Your task to perform on an android device: turn off priority inbox in the gmail app Image 0: 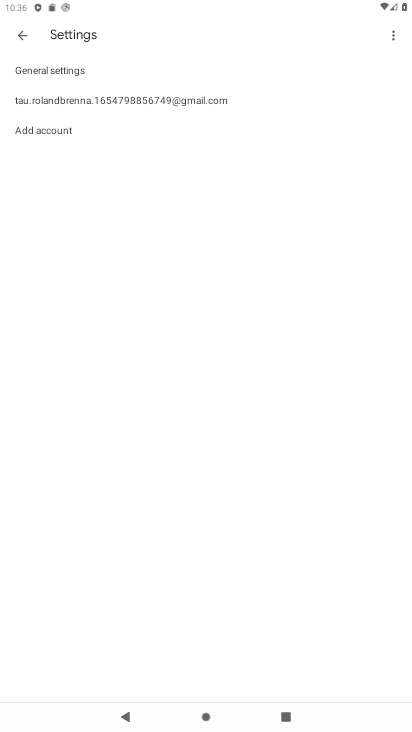
Step 0: press home button
Your task to perform on an android device: turn off priority inbox in the gmail app Image 1: 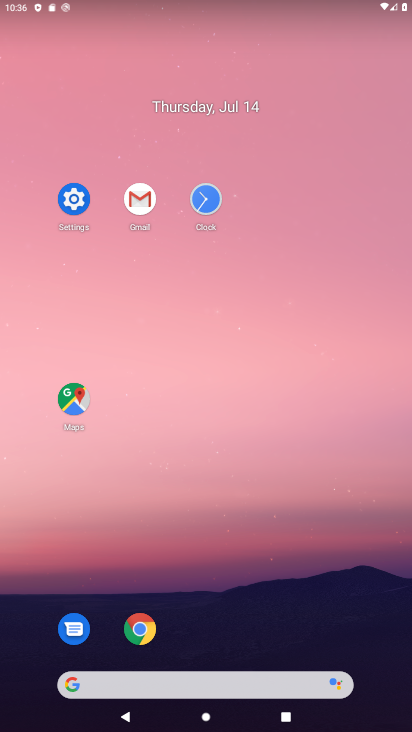
Step 1: click (139, 195)
Your task to perform on an android device: turn off priority inbox in the gmail app Image 2: 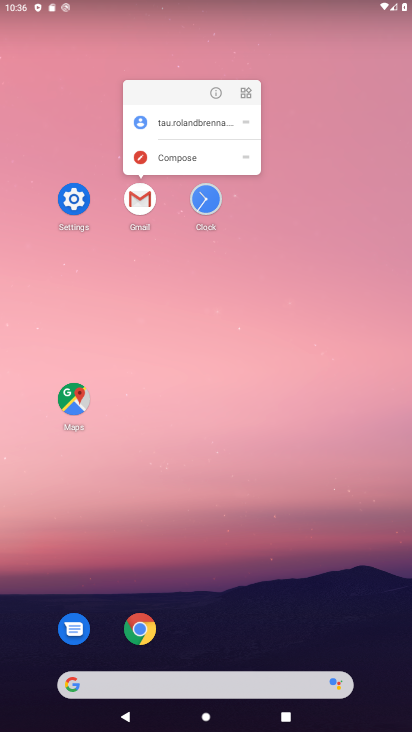
Step 2: click (137, 195)
Your task to perform on an android device: turn off priority inbox in the gmail app Image 3: 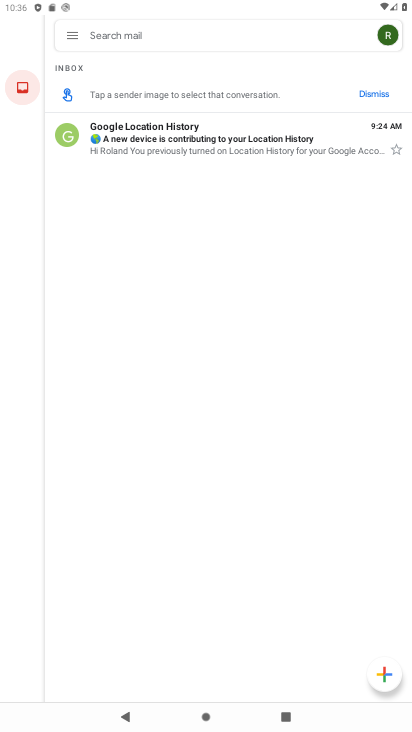
Step 3: click (66, 44)
Your task to perform on an android device: turn off priority inbox in the gmail app Image 4: 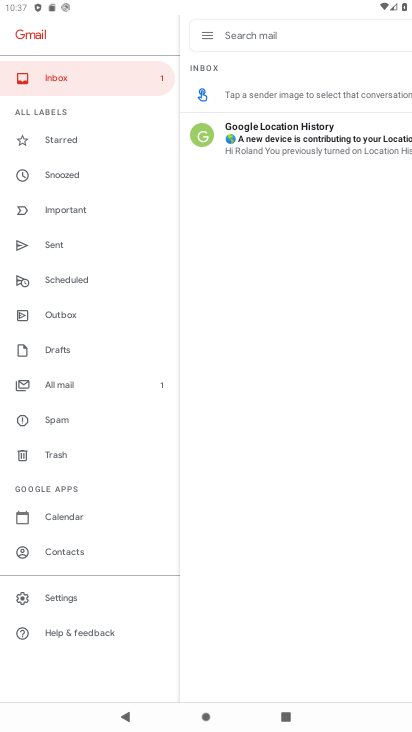
Step 4: click (67, 599)
Your task to perform on an android device: turn off priority inbox in the gmail app Image 5: 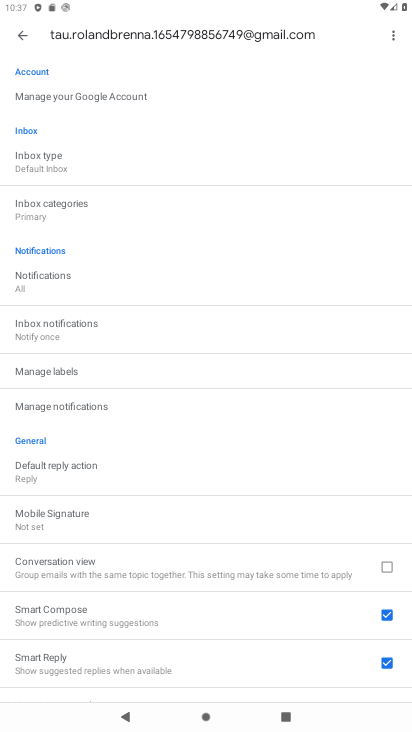
Step 5: click (34, 162)
Your task to perform on an android device: turn off priority inbox in the gmail app Image 6: 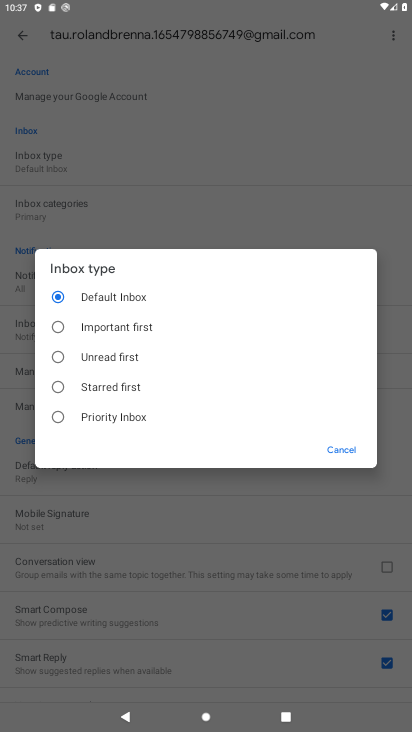
Step 6: click (144, 413)
Your task to perform on an android device: turn off priority inbox in the gmail app Image 7: 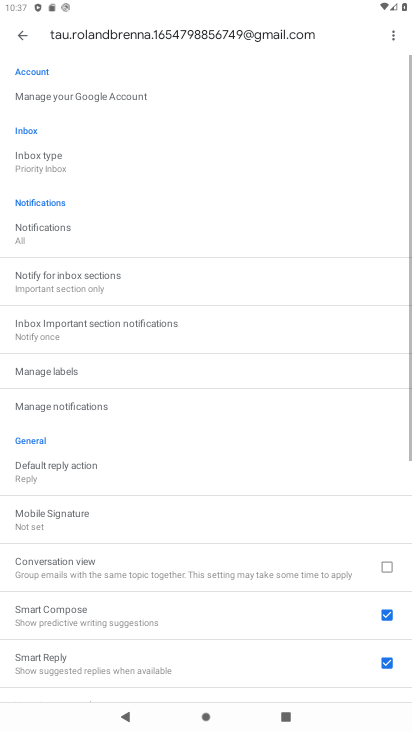
Step 7: click (60, 152)
Your task to perform on an android device: turn off priority inbox in the gmail app Image 8: 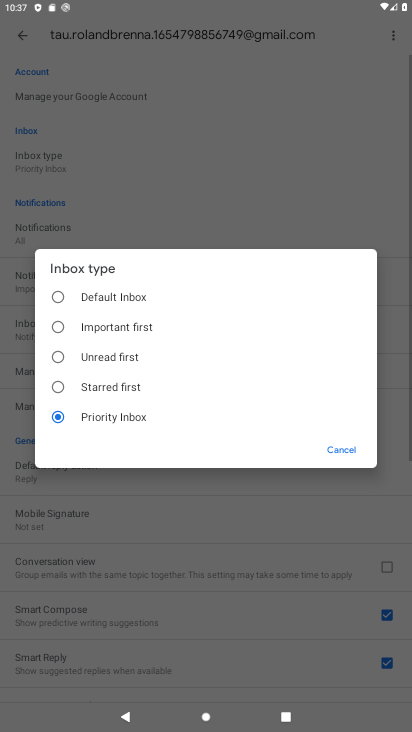
Step 8: click (80, 295)
Your task to perform on an android device: turn off priority inbox in the gmail app Image 9: 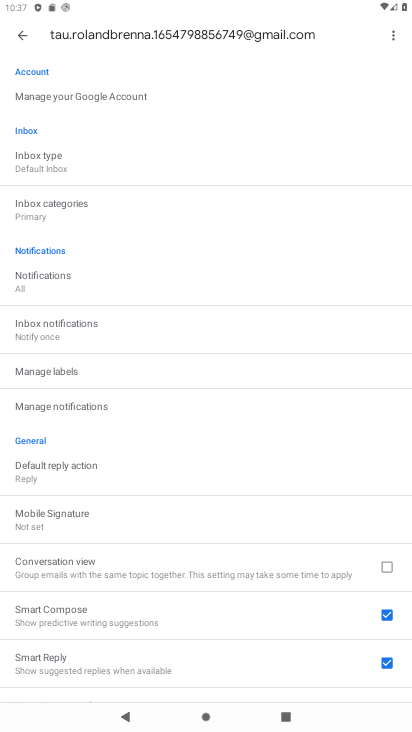
Step 9: task complete